Your task to perform on an android device: change notification settings in the gmail app Image 0: 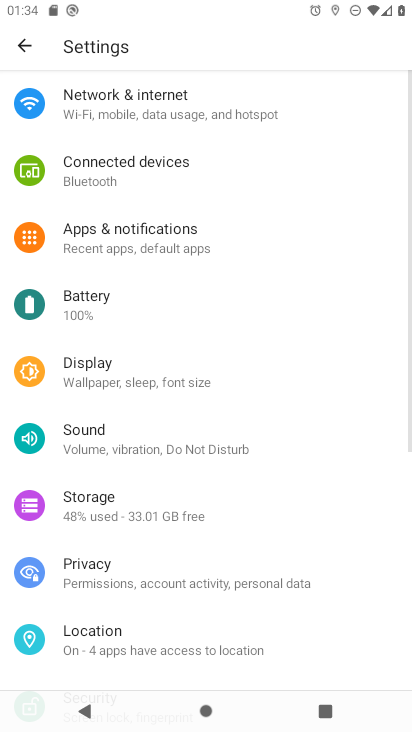
Step 0: press home button
Your task to perform on an android device: change notification settings in the gmail app Image 1: 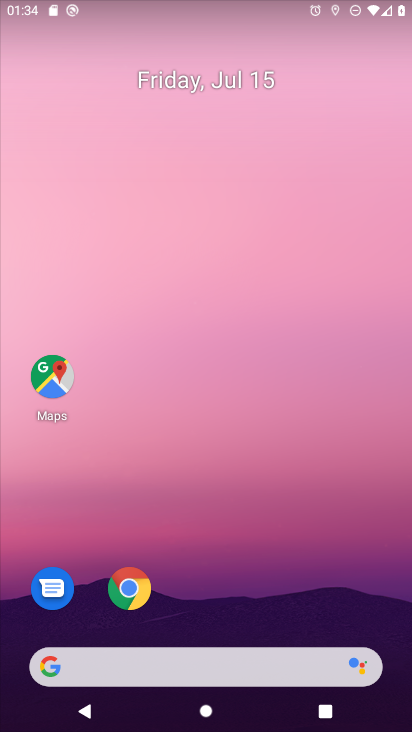
Step 1: drag from (397, 661) to (365, 198)
Your task to perform on an android device: change notification settings in the gmail app Image 2: 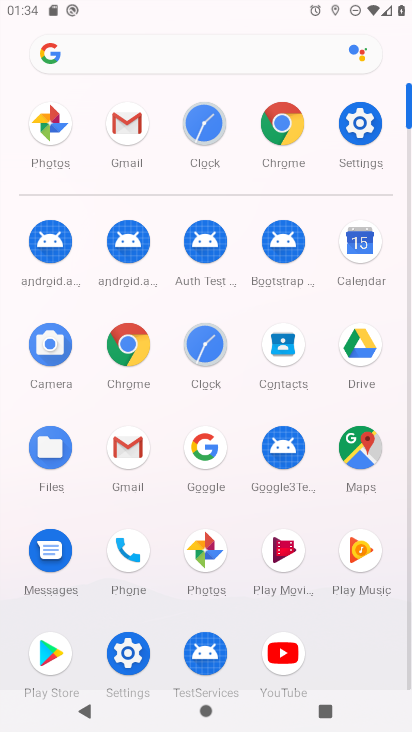
Step 2: click (127, 451)
Your task to perform on an android device: change notification settings in the gmail app Image 3: 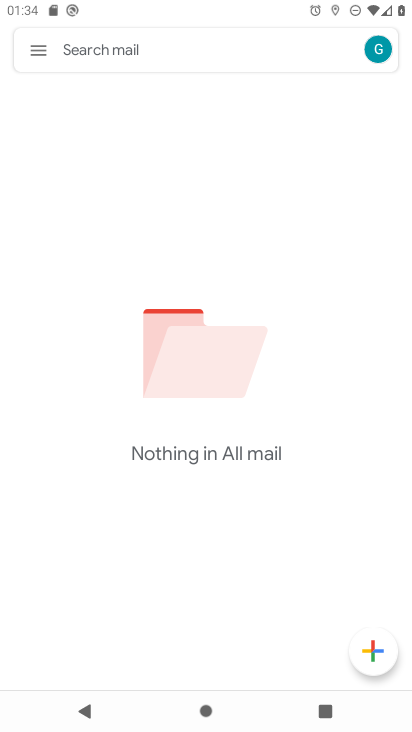
Step 3: click (35, 45)
Your task to perform on an android device: change notification settings in the gmail app Image 4: 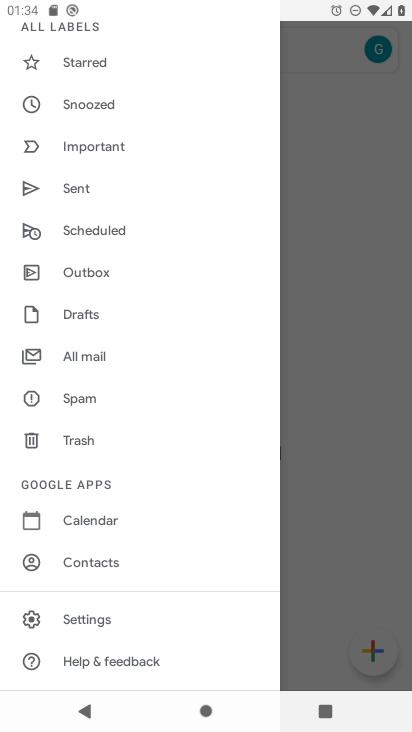
Step 4: click (76, 622)
Your task to perform on an android device: change notification settings in the gmail app Image 5: 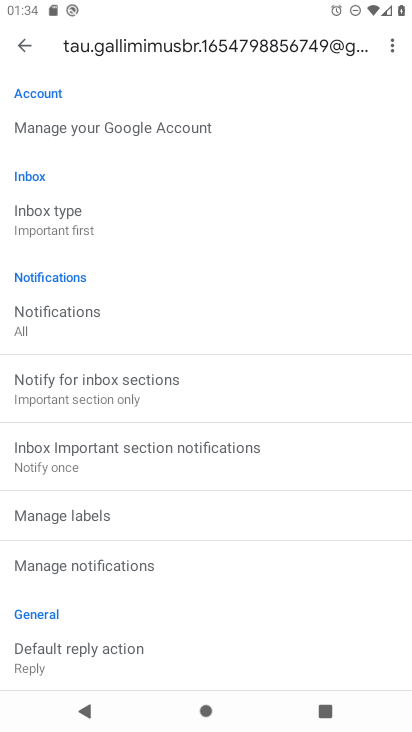
Step 5: drag from (237, 457) to (252, 180)
Your task to perform on an android device: change notification settings in the gmail app Image 6: 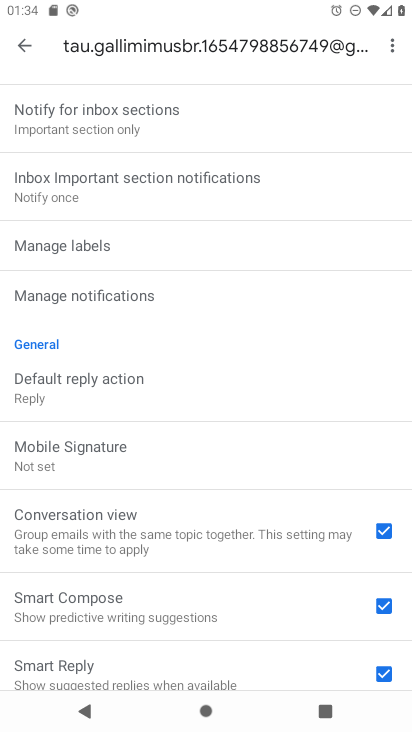
Step 6: click (95, 294)
Your task to perform on an android device: change notification settings in the gmail app Image 7: 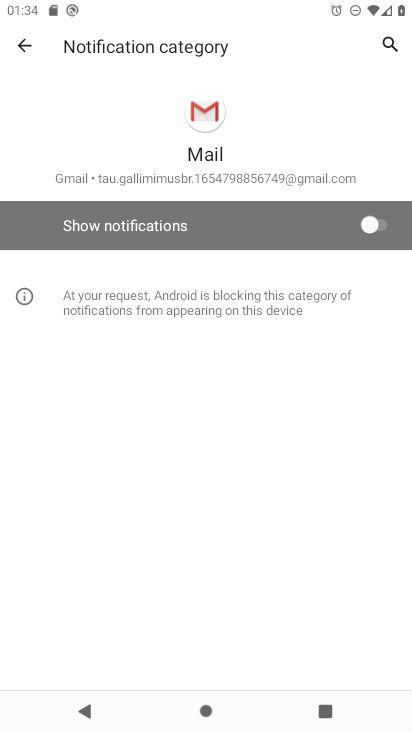
Step 7: click (384, 229)
Your task to perform on an android device: change notification settings in the gmail app Image 8: 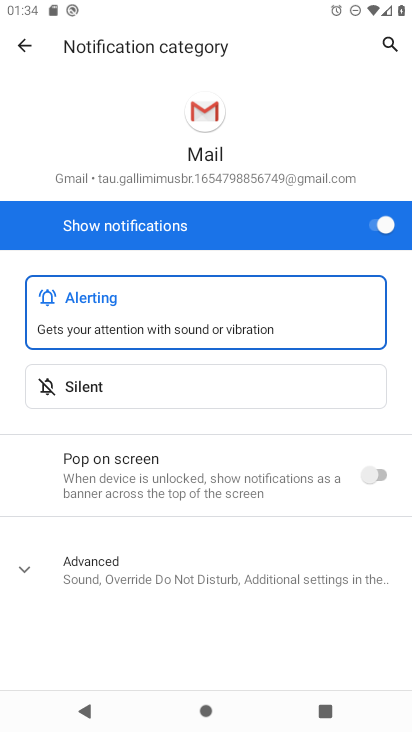
Step 8: task complete